Your task to perform on an android device: What's the weather going to be tomorrow? Image 0: 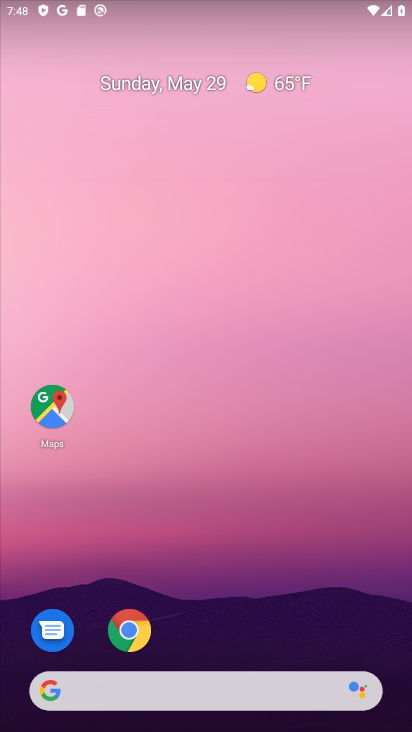
Step 0: click (252, 81)
Your task to perform on an android device: What's the weather going to be tomorrow? Image 1: 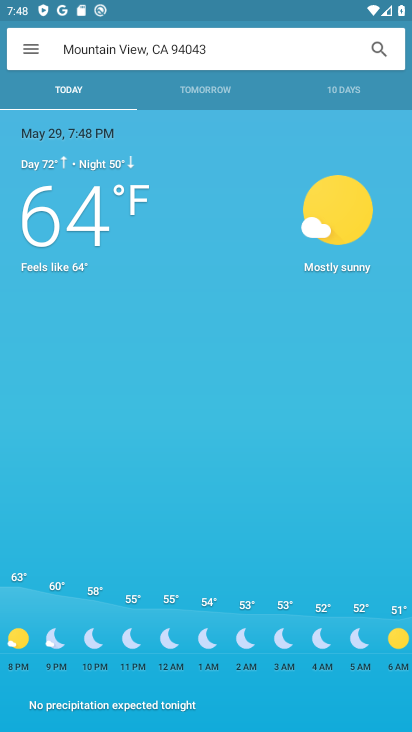
Step 1: click (202, 90)
Your task to perform on an android device: What's the weather going to be tomorrow? Image 2: 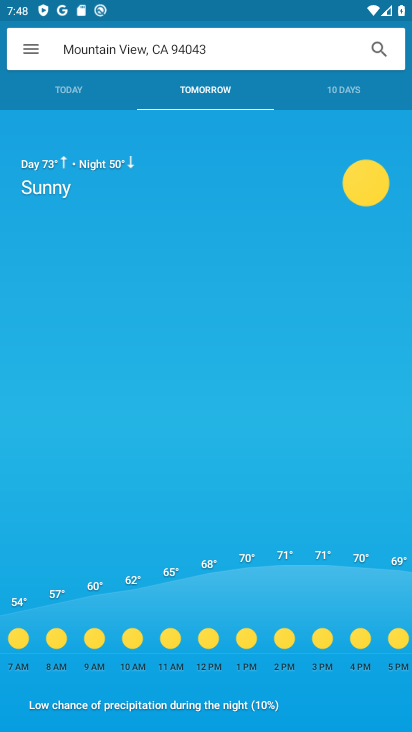
Step 2: task complete